Your task to perform on an android device: delete browsing data in the chrome app Image 0: 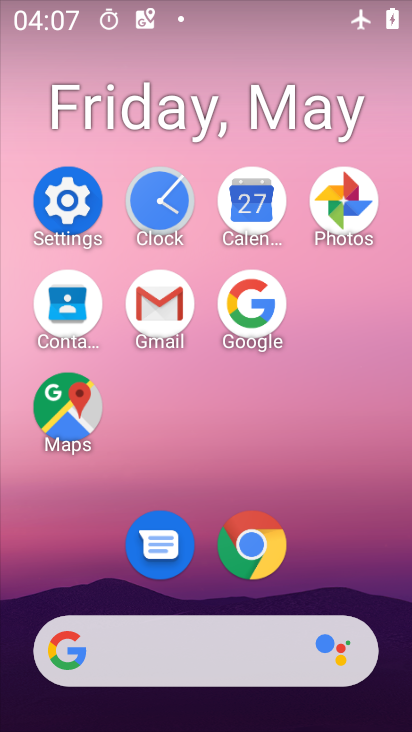
Step 0: click (259, 554)
Your task to perform on an android device: delete browsing data in the chrome app Image 1: 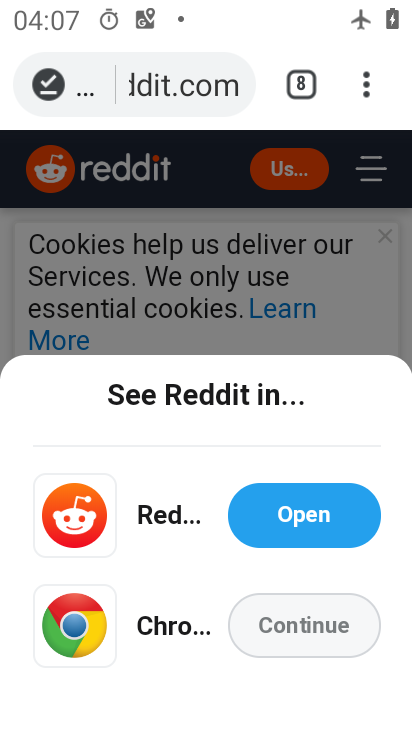
Step 1: click (369, 86)
Your task to perform on an android device: delete browsing data in the chrome app Image 2: 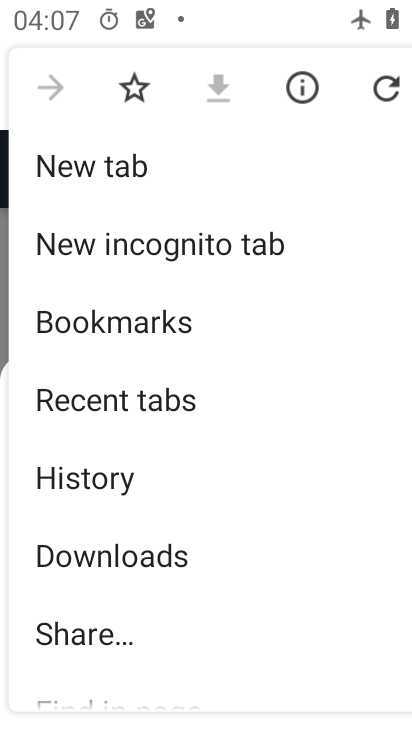
Step 2: drag from (203, 601) to (225, 170)
Your task to perform on an android device: delete browsing data in the chrome app Image 3: 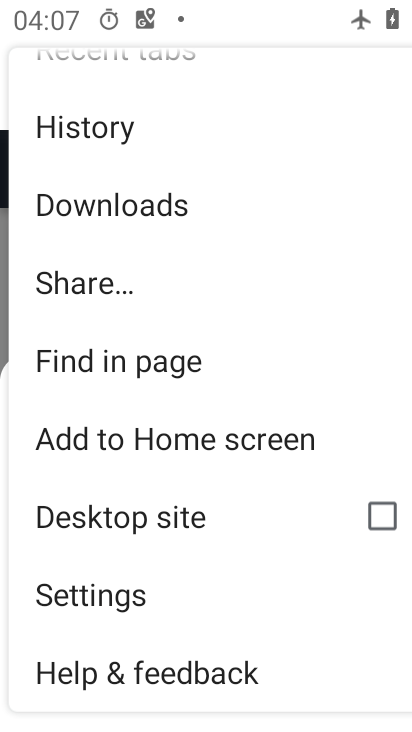
Step 3: click (138, 590)
Your task to perform on an android device: delete browsing data in the chrome app Image 4: 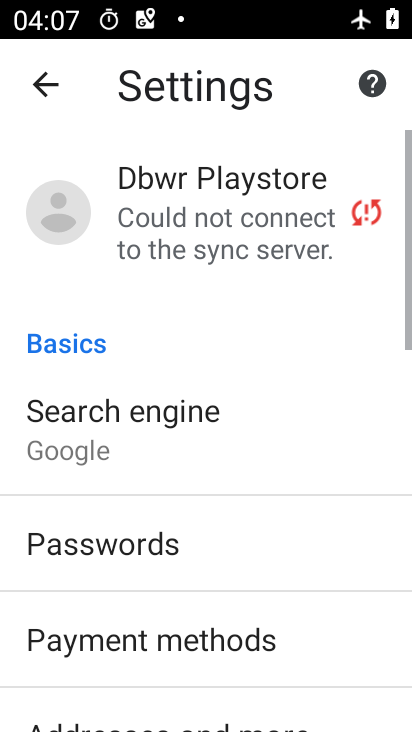
Step 4: drag from (138, 587) to (179, 215)
Your task to perform on an android device: delete browsing data in the chrome app Image 5: 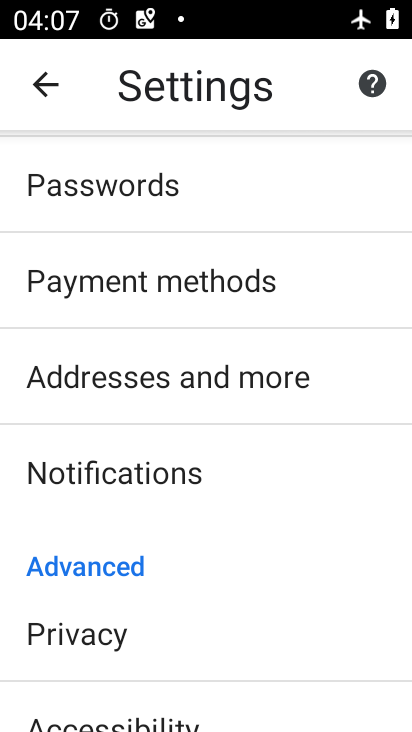
Step 5: click (200, 641)
Your task to perform on an android device: delete browsing data in the chrome app Image 6: 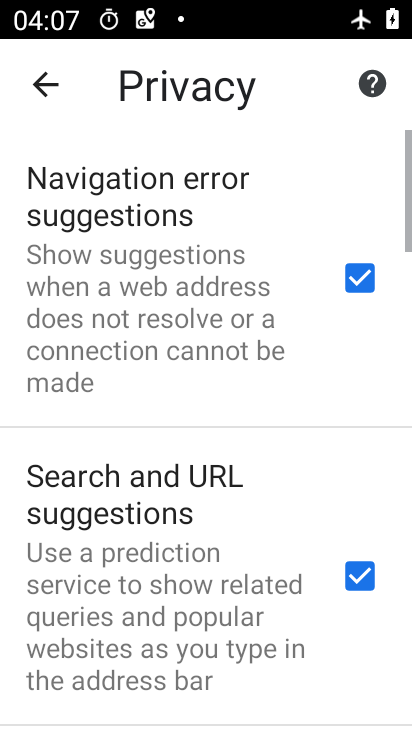
Step 6: drag from (201, 633) to (231, 185)
Your task to perform on an android device: delete browsing data in the chrome app Image 7: 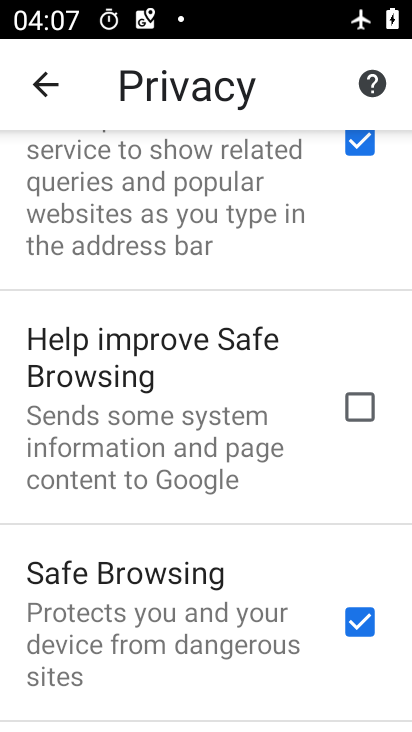
Step 7: drag from (251, 697) to (309, 166)
Your task to perform on an android device: delete browsing data in the chrome app Image 8: 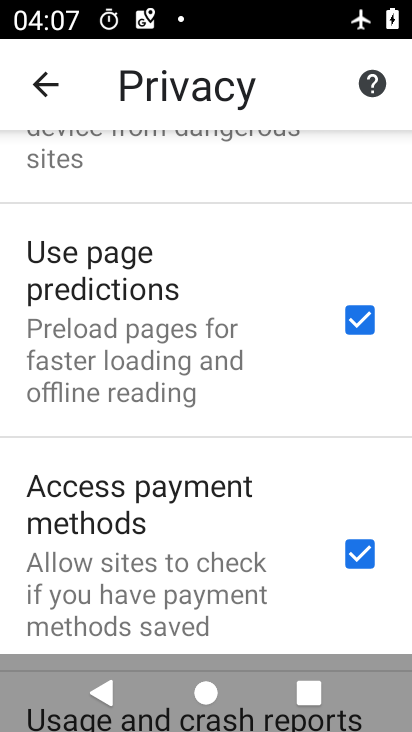
Step 8: drag from (271, 643) to (306, 213)
Your task to perform on an android device: delete browsing data in the chrome app Image 9: 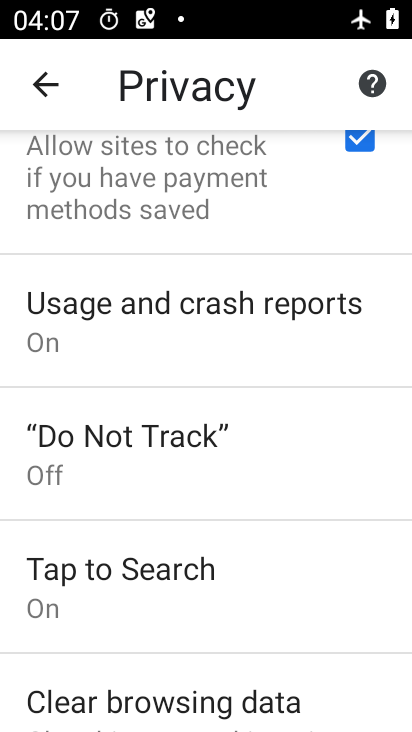
Step 9: drag from (259, 673) to (322, 247)
Your task to perform on an android device: delete browsing data in the chrome app Image 10: 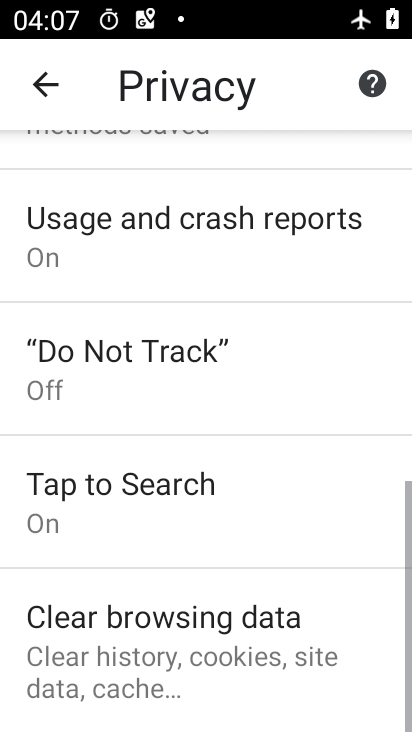
Step 10: click (326, 675)
Your task to perform on an android device: delete browsing data in the chrome app Image 11: 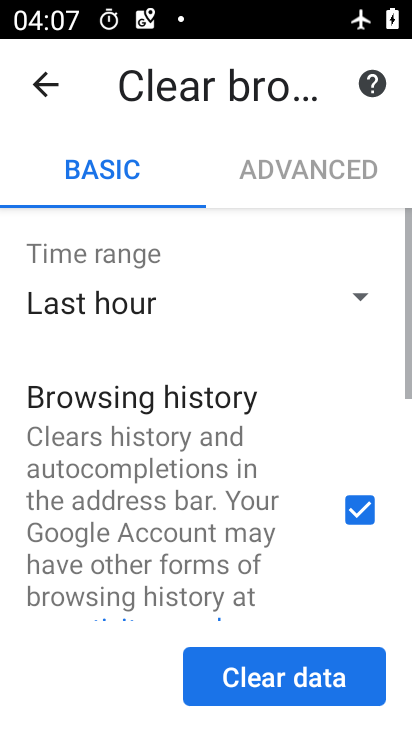
Step 11: drag from (227, 581) to (263, 163)
Your task to perform on an android device: delete browsing data in the chrome app Image 12: 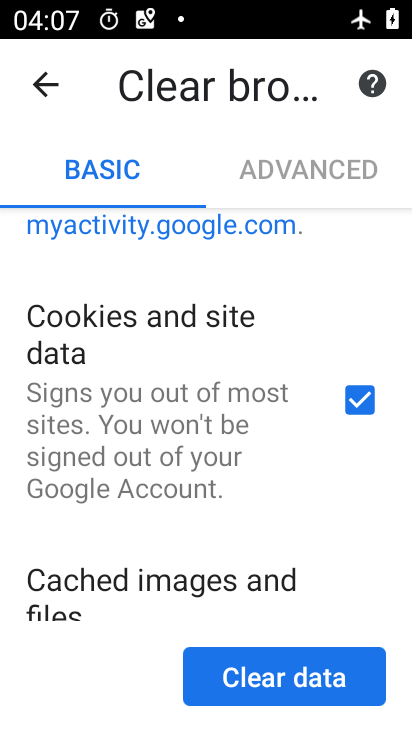
Step 12: drag from (283, 569) to (302, 109)
Your task to perform on an android device: delete browsing data in the chrome app Image 13: 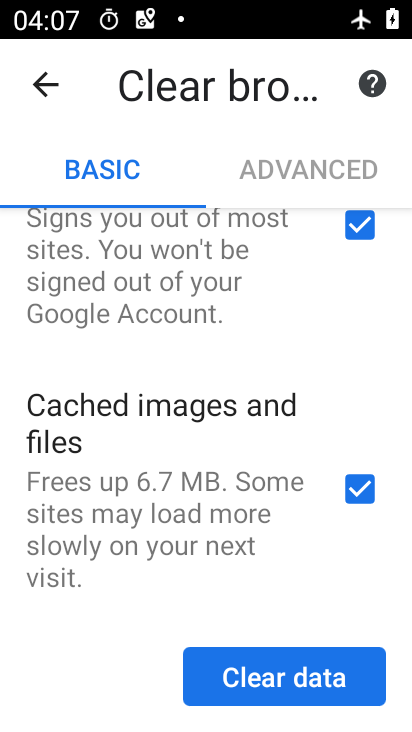
Step 13: drag from (244, 580) to (267, 157)
Your task to perform on an android device: delete browsing data in the chrome app Image 14: 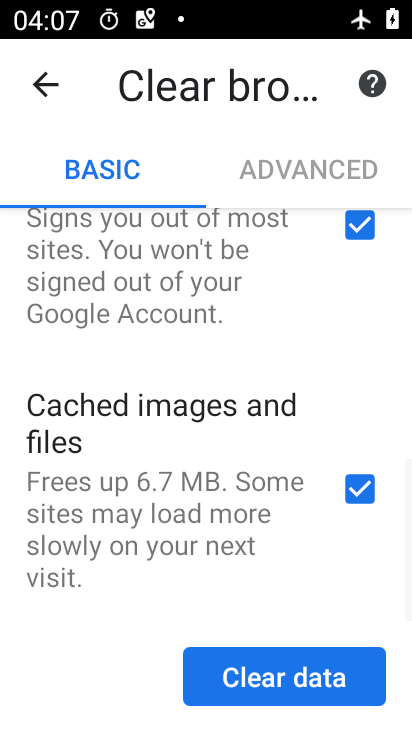
Step 14: drag from (168, 613) to (206, 123)
Your task to perform on an android device: delete browsing data in the chrome app Image 15: 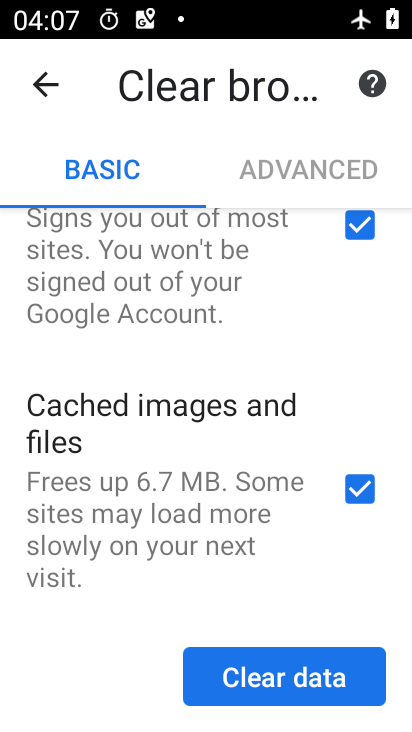
Step 15: drag from (256, 528) to (256, 210)
Your task to perform on an android device: delete browsing data in the chrome app Image 16: 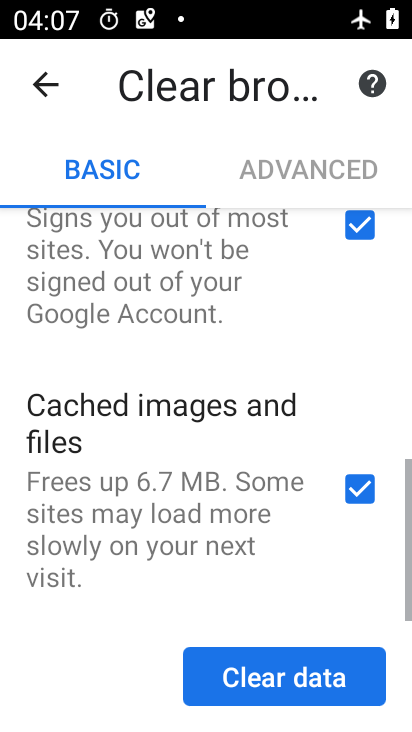
Step 16: click (303, 666)
Your task to perform on an android device: delete browsing data in the chrome app Image 17: 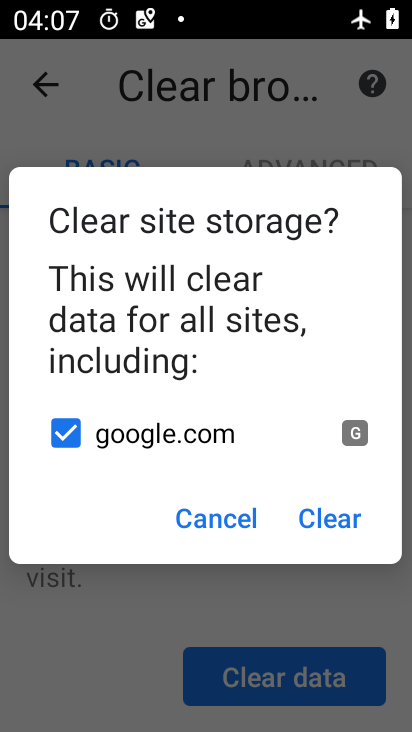
Step 17: click (354, 526)
Your task to perform on an android device: delete browsing data in the chrome app Image 18: 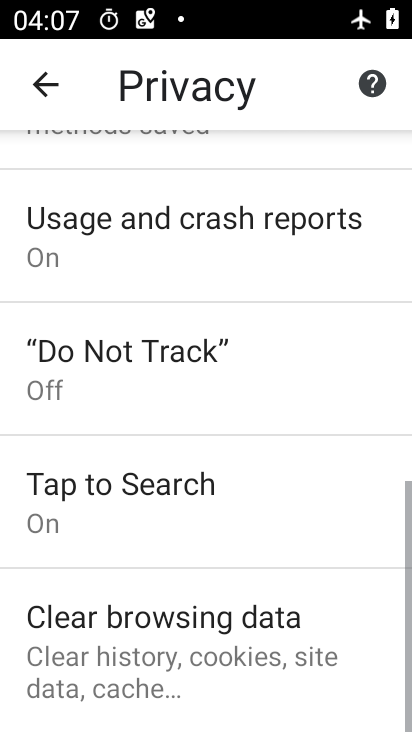
Step 18: task complete